Your task to perform on an android device: allow notifications from all sites in the chrome app Image 0: 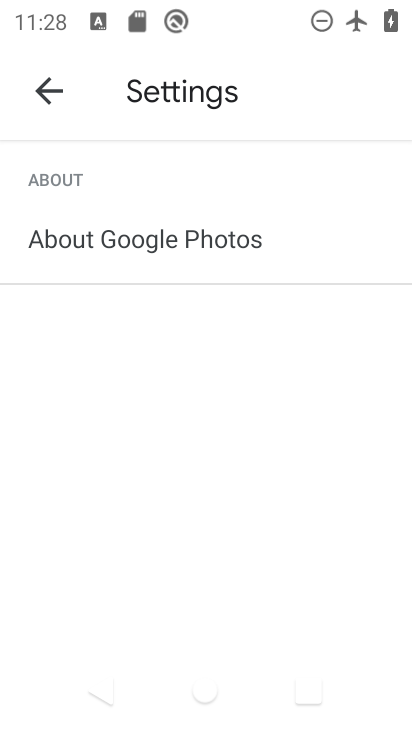
Step 0: press home button
Your task to perform on an android device: allow notifications from all sites in the chrome app Image 1: 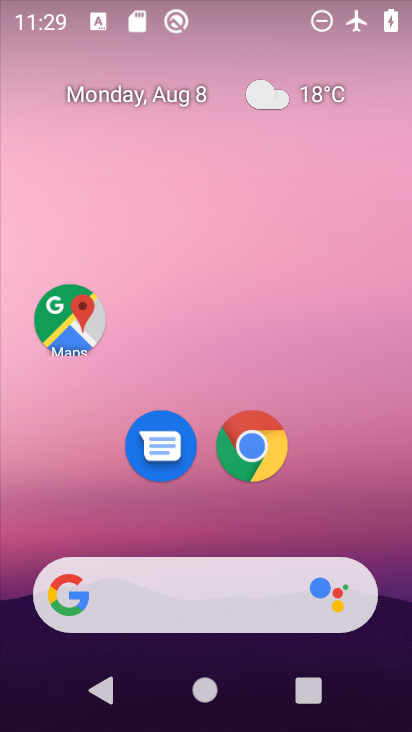
Step 1: click (249, 445)
Your task to perform on an android device: allow notifications from all sites in the chrome app Image 2: 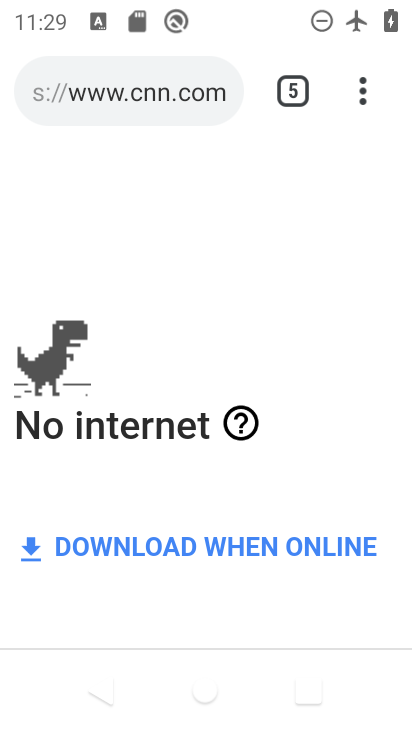
Step 2: click (356, 105)
Your task to perform on an android device: allow notifications from all sites in the chrome app Image 3: 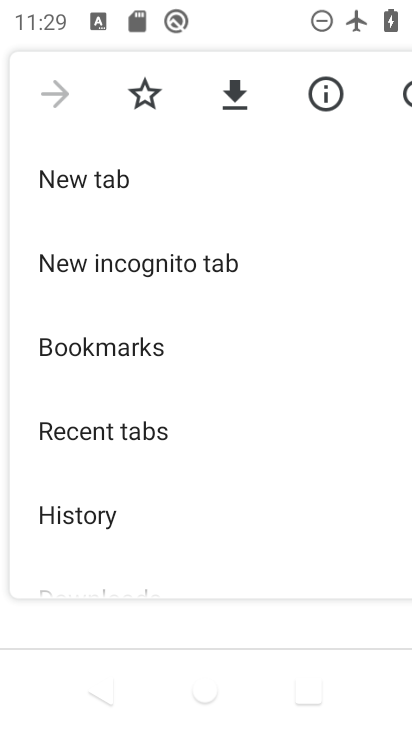
Step 3: drag from (199, 549) to (270, 196)
Your task to perform on an android device: allow notifications from all sites in the chrome app Image 4: 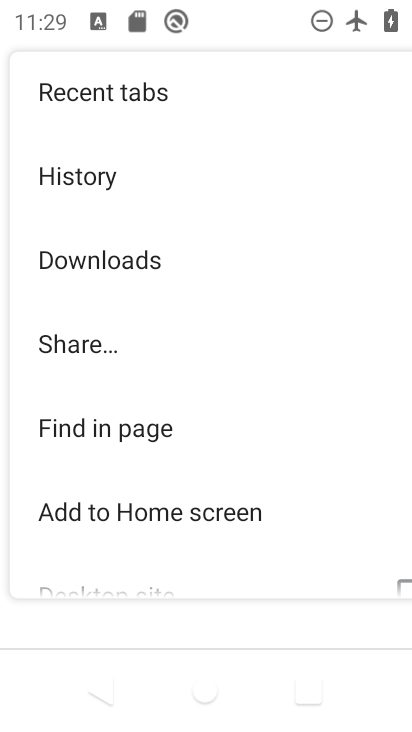
Step 4: drag from (290, 534) to (257, 193)
Your task to perform on an android device: allow notifications from all sites in the chrome app Image 5: 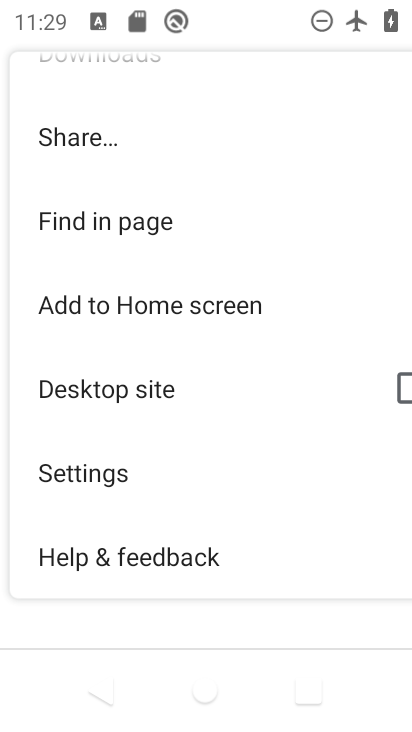
Step 5: click (103, 473)
Your task to perform on an android device: allow notifications from all sites in the chrome app Image 6: 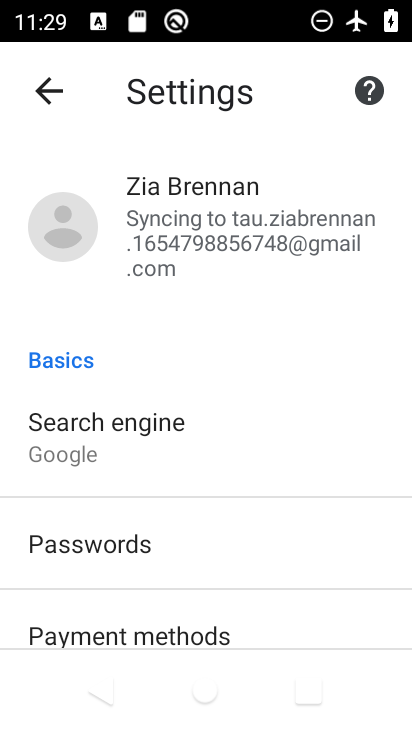
Step 6: drag from (305, 578) to (305, 172)
Your task to perform on an android device: allow notifications from all sites in the chrome app Image 7: 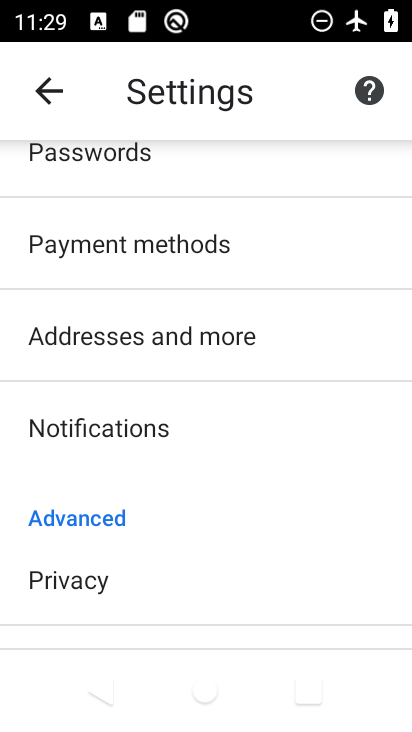
Step 7: drag from (269, 567) to (268, 234)
Your task to perform on an android device: allow notifications from all sites in the chrome app Image 8: 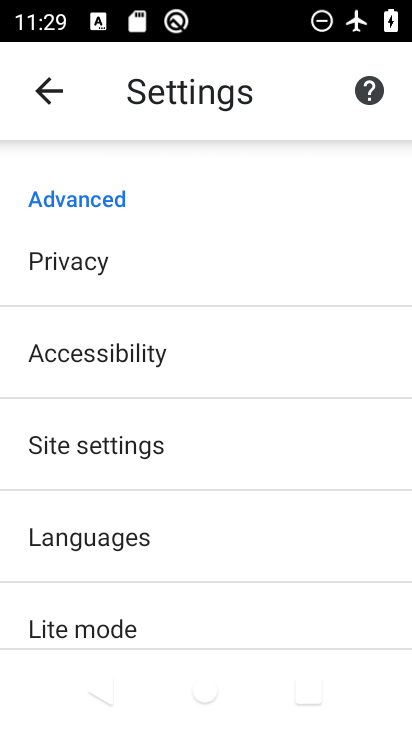
Step 8: click (106, 451)
Your task to perform on an android device: allow notifications from all sites in the chrome app Image 9: 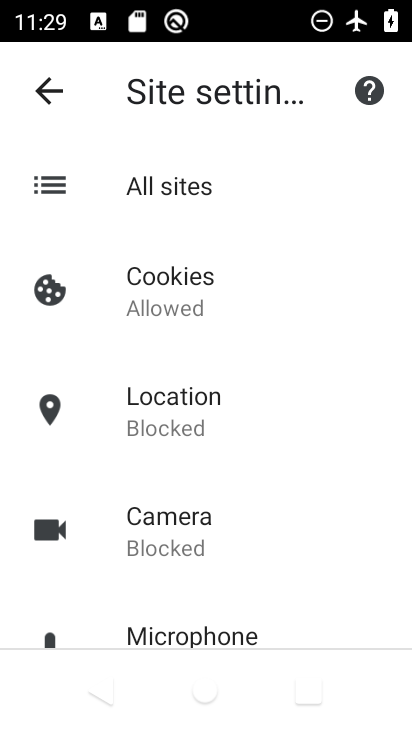
Step 9: drag from (281, 583) to (288, 230)
Your task to perform on an android device: allow notifications from all sites in the chrome app Image 10: 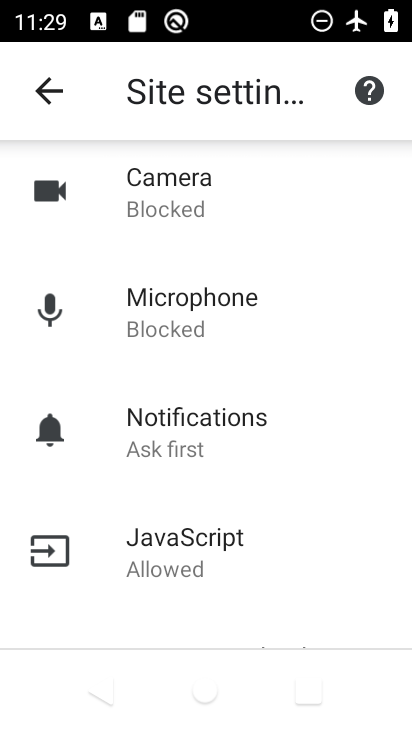
Step 10: click (143, 404)
Your task to perform on an android device: allow notifications from all sites in the chrome app Image 11: 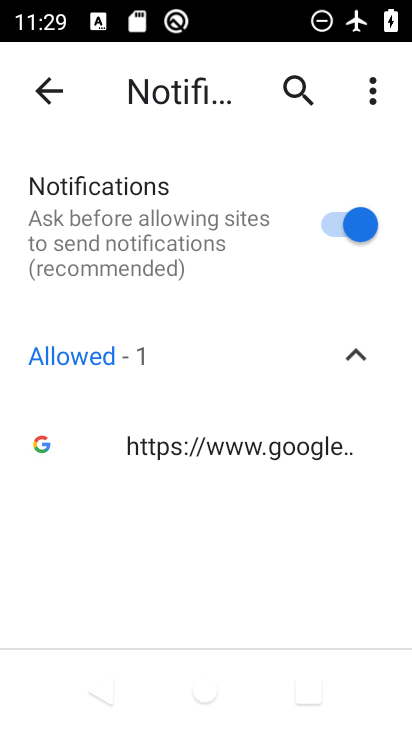
Step 11: task complete